Your task to perform on an android device: turn off wifi Image 0: 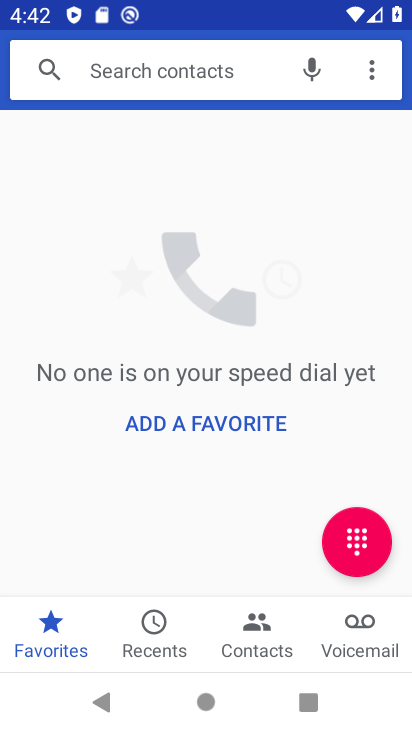
Step 0: press home button
Your task to perform on an android device: turn off wifi Image 1: 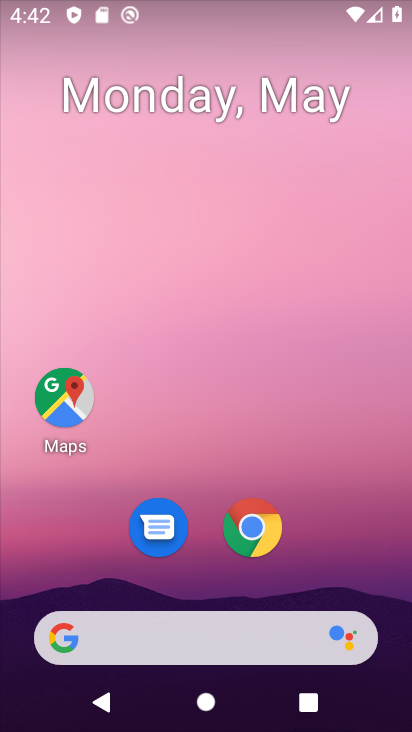
Step 1: drag from (332, 443) to (309, 145)
Your task to perform on an android device: turn off wifi Image 2: 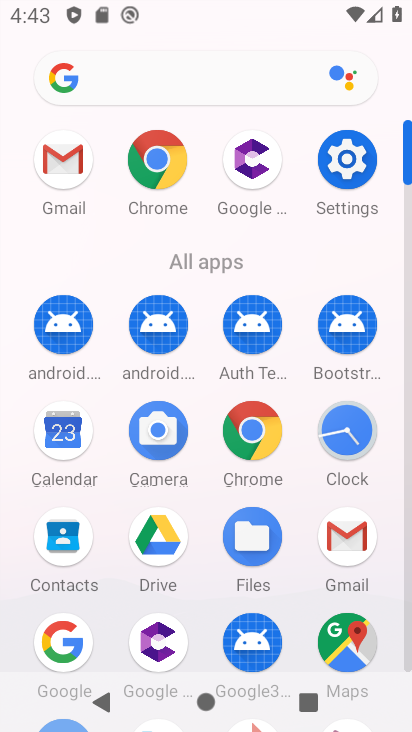
Step 2: click (353, 165)
Your task to perform on an android device: turn off wifi Image 3: 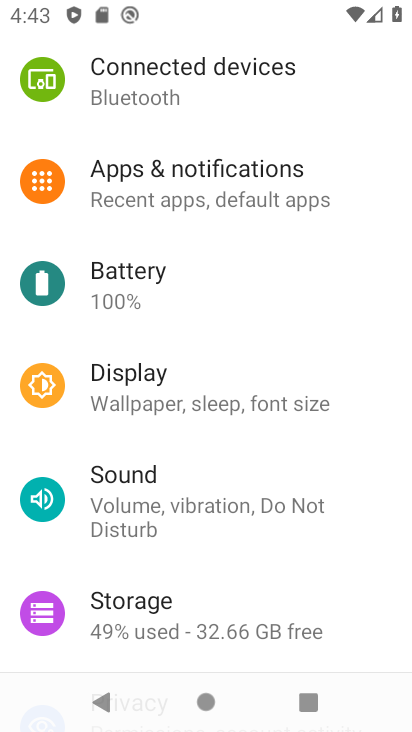
Step 3: drag from (361, 126) to (360, 702)
Your task to perform on an android device: turn off wifi Image 4: 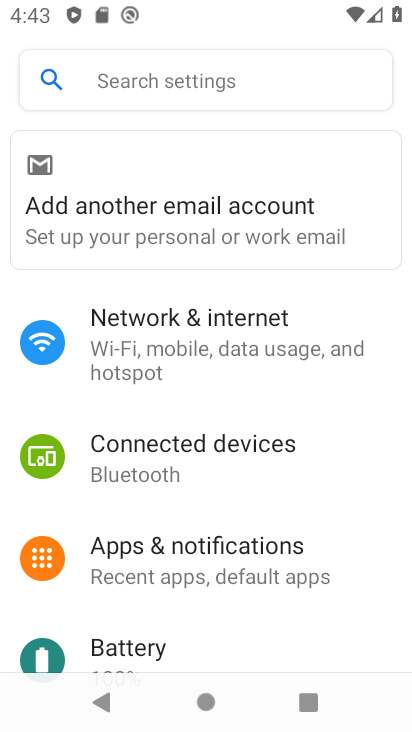
Step 4: click (190, 318)
Your task to perform on an android device: turn off wifi Image 5: 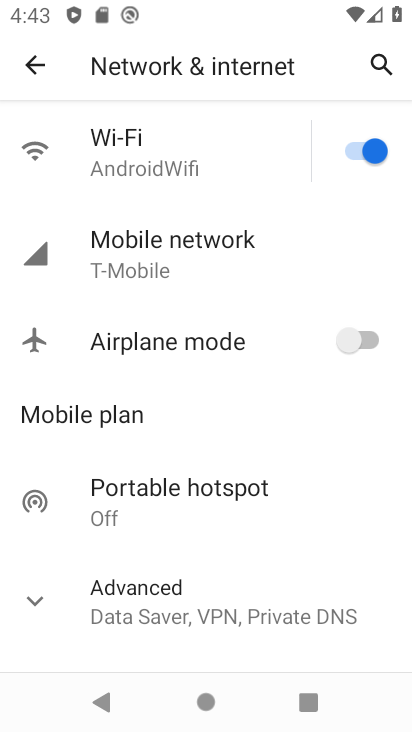
Step 5: click (351, 151)
Your task to perform on an android device: turn off wifi Image 6: 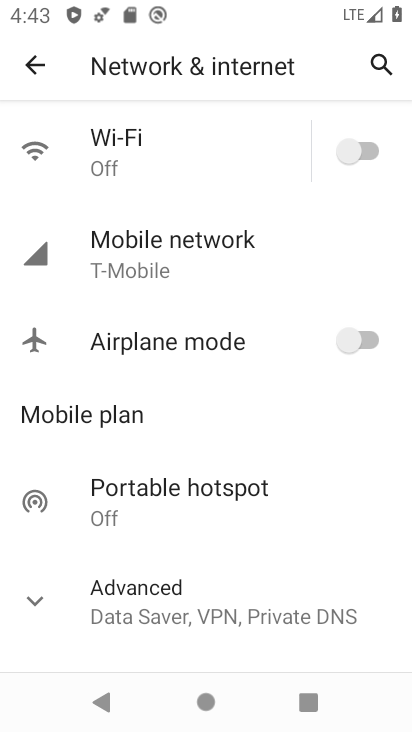
Step 6: task complete